Your task to perform on an android device: What's the weather going to be tomorrow? Image 0: 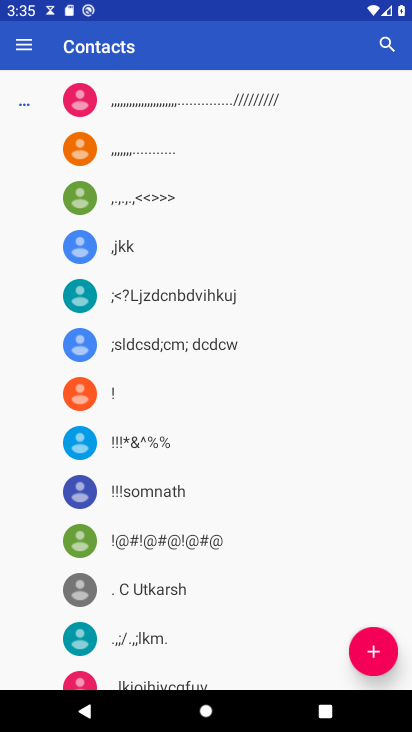
Step 0: press home button
Your task to perform on an android device: What's the weather going to be tomorrow? Image 1: 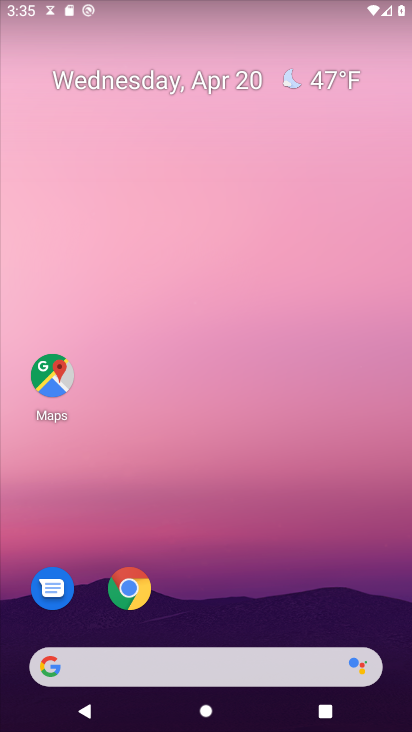
Step 1: drag from (221, 537) to (257, 117)
Your task to perform on an android device: What's the weather going to be tomorrow? Image 2: 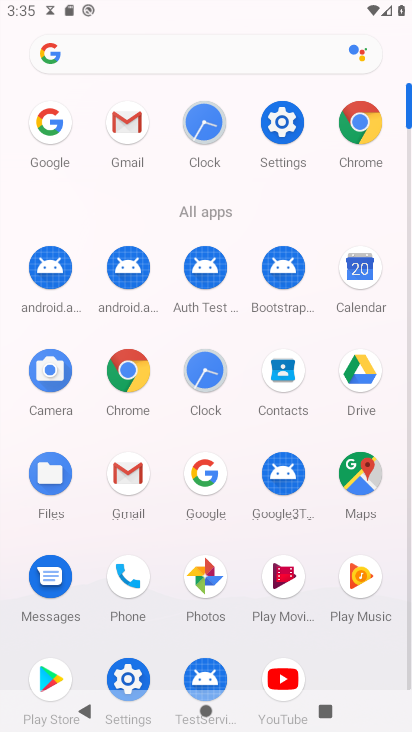
Step 2: click (147, 60)
Your task to perform on an android device: What's the weather going to be tomorrow? Image 3: 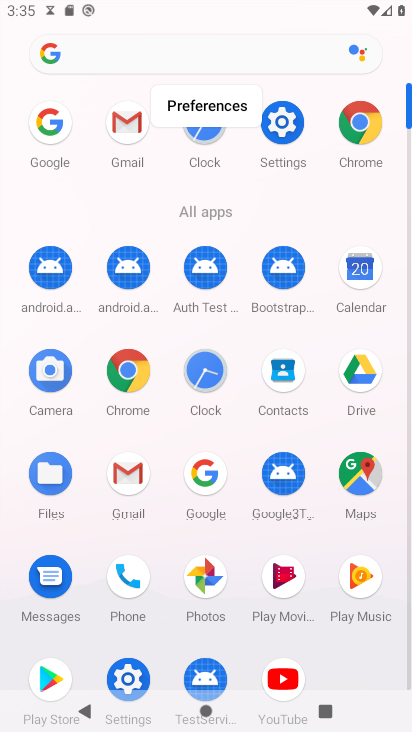
Step 3: click (147, 60)
Your task to perform on an android device: What's the weather going to be tomorrow? Image 4: 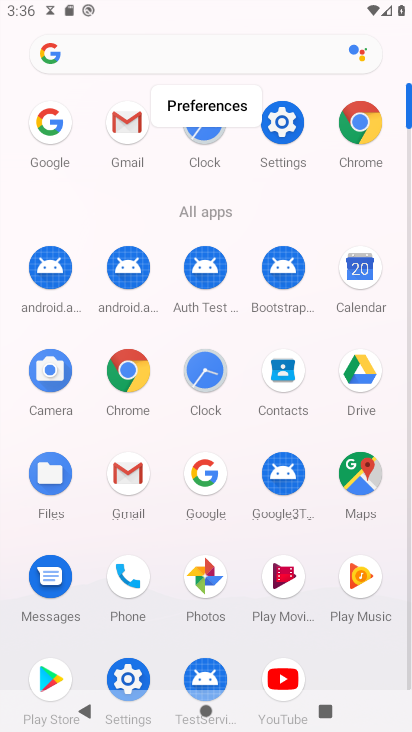
Step 4: click (70, 41)
Your task to perform on an android device: What's the weather going to be tomorrow? Image 5: 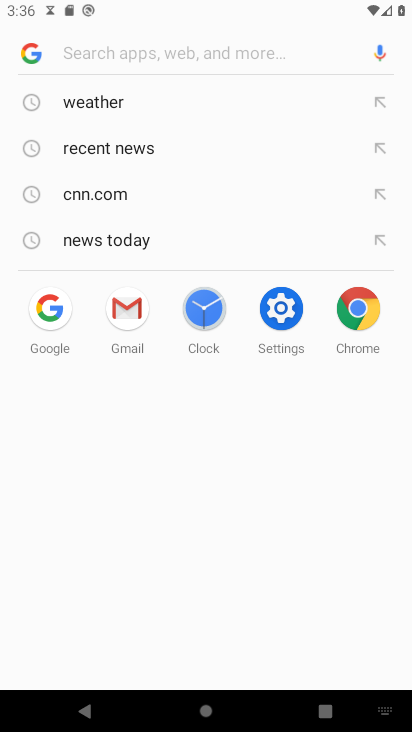
Step 5: type "what's the weather going to be tomorrow"
Your task to perform on an android device: What's the weather going to be tomorrow? Image 6: 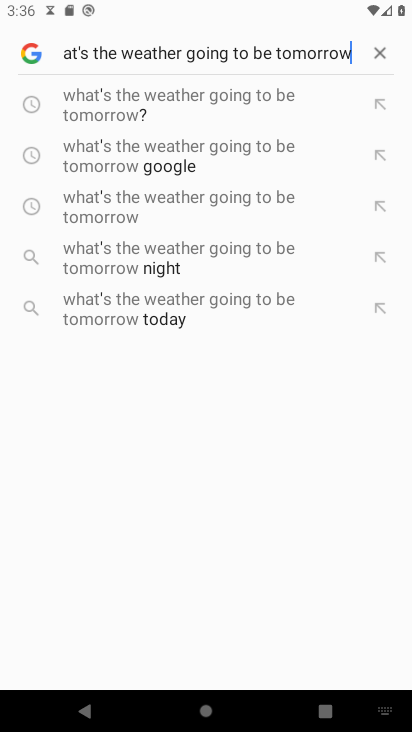
Step 6: click (124, 213)
Your task to perform on an android device: What's the weather going to be tomorrow? Image 7: 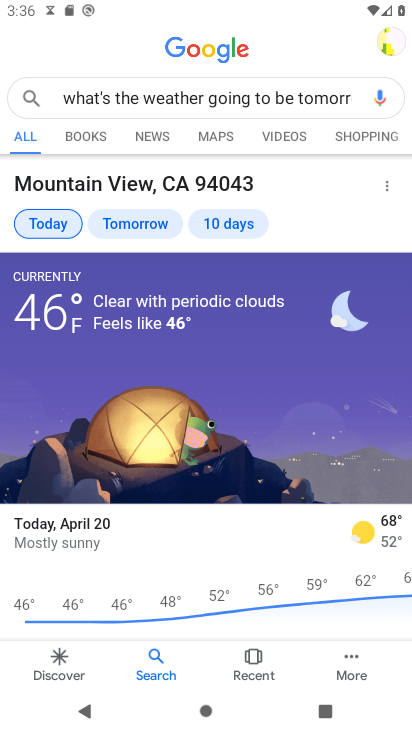
Step 7: task complete